Your task to perform on an android device: toggle wifi Image 0: 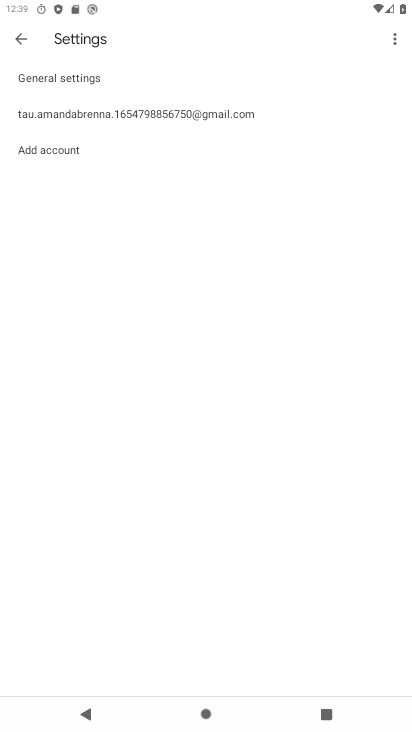
Step 0: press home button
Your task to perform on an android device: toggle wifi Image 1: 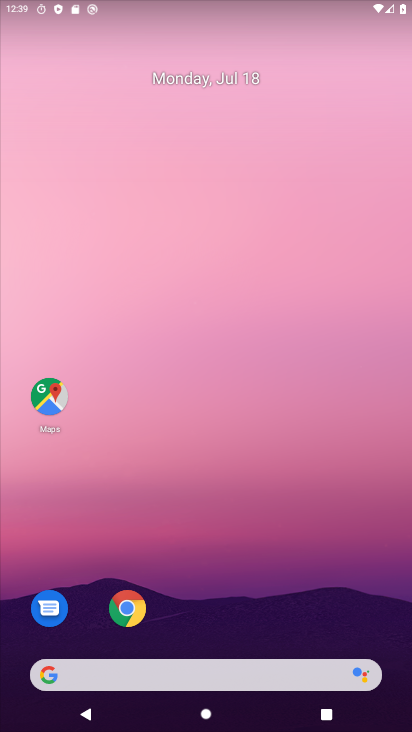
Step 1: drag from (198, 598) to (280, 6)
Your task to perform on an android device: toggle wifi Image 2: 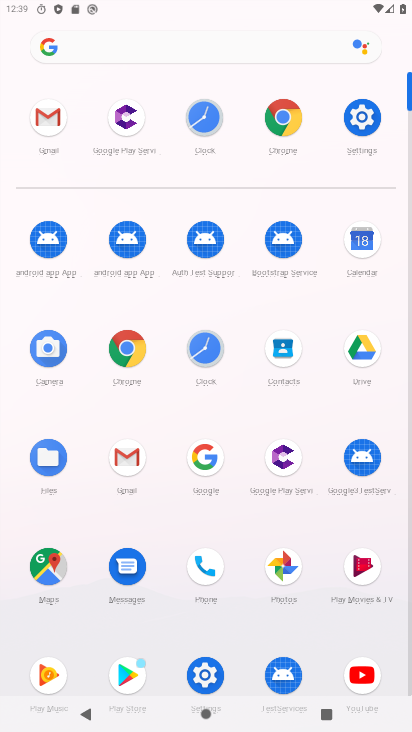
Step 2: click (362, 120)
Your task to perform on an android device: toggle wifi Image 3: 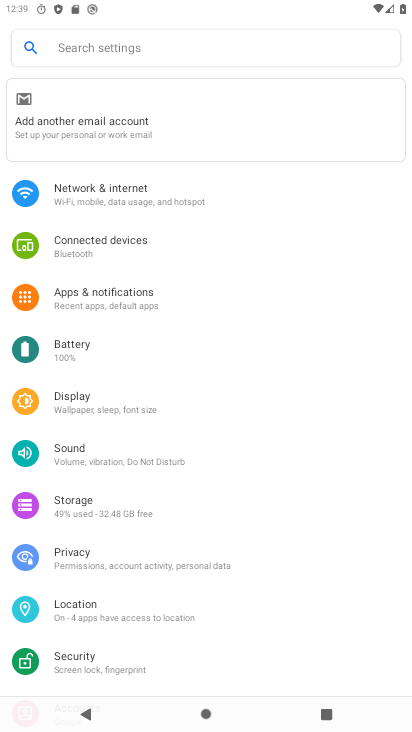
Step 3: click (97, 201)
Your task to perform on an android device: toggle wifi Image 4: 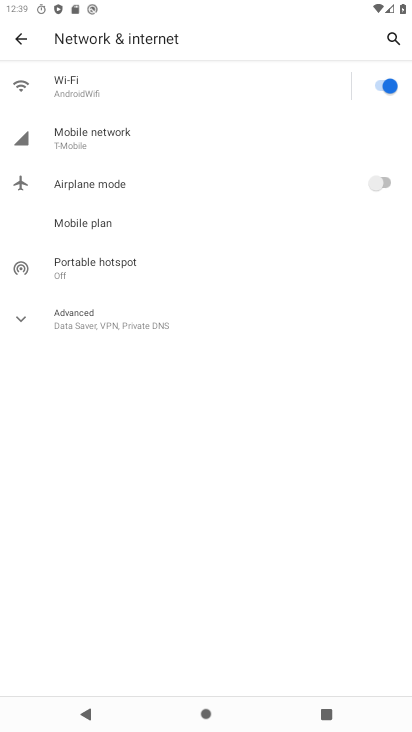
Step 4: click (384, 86)
Your task to perform on an android device: toggle wifi Image 5: 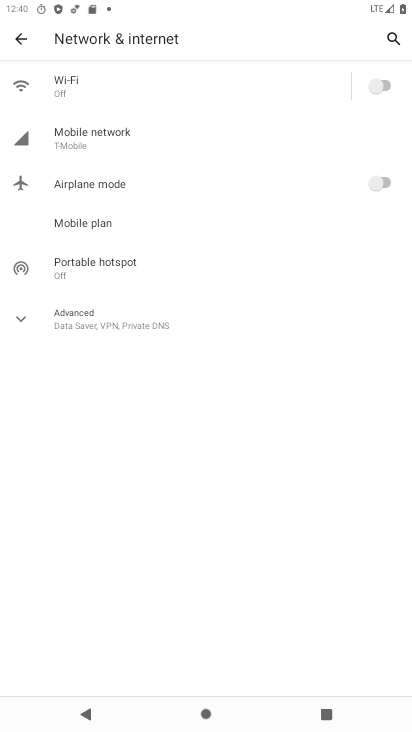
Step 5: task complete